Your task to perform on an android device: add a label to a message in the gmail app Image 0: 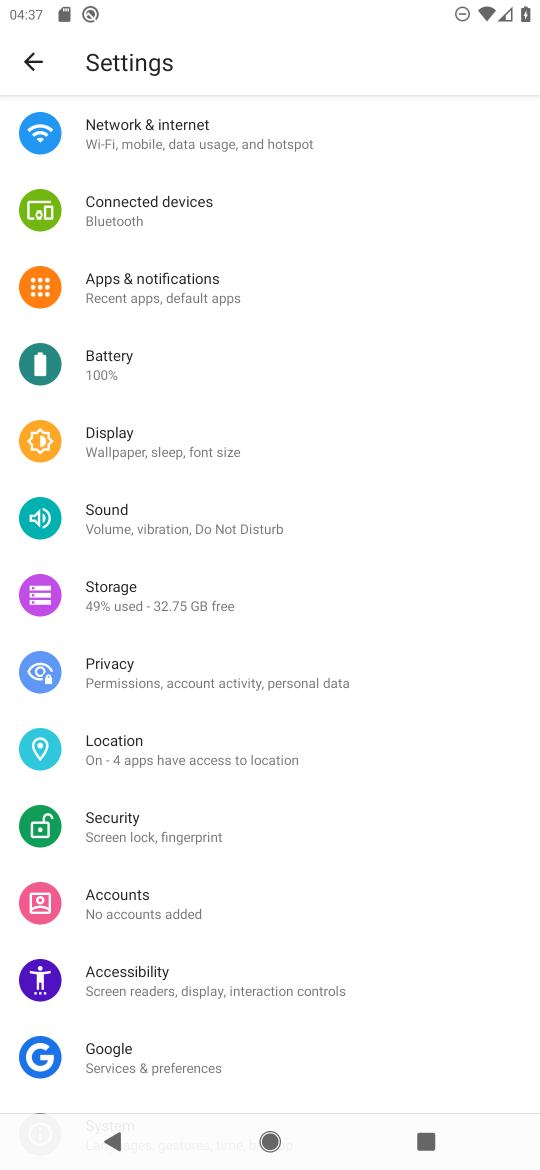
Step 0: press home button
Your task to perform on an android device: add a label to a message in the gmail app Image 1: 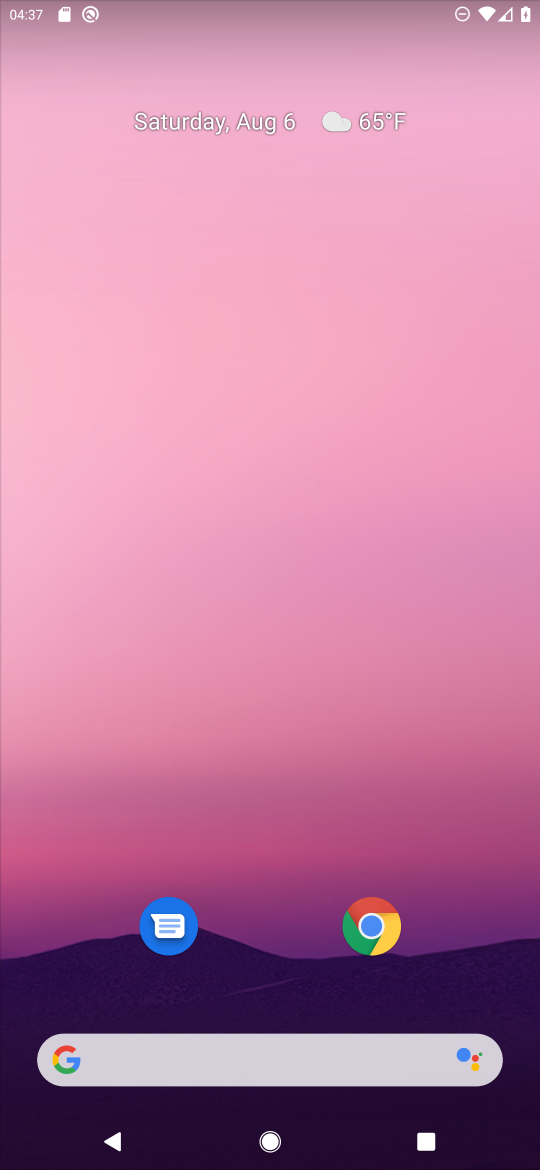
Step 1: drag from (274, 956) to (255, 445)
Your task to perform on an android device: add a label to a message in the gmail app Image 2: 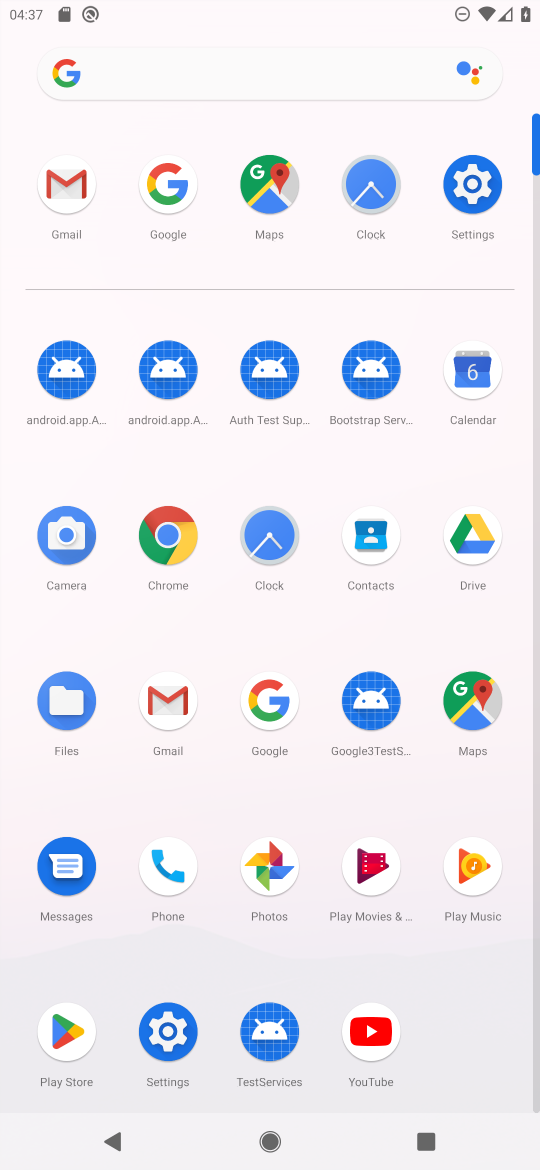
Step 2: click (153, 707)
Your task to perform on an android device: add a label to a message in the gmail app Image 3: 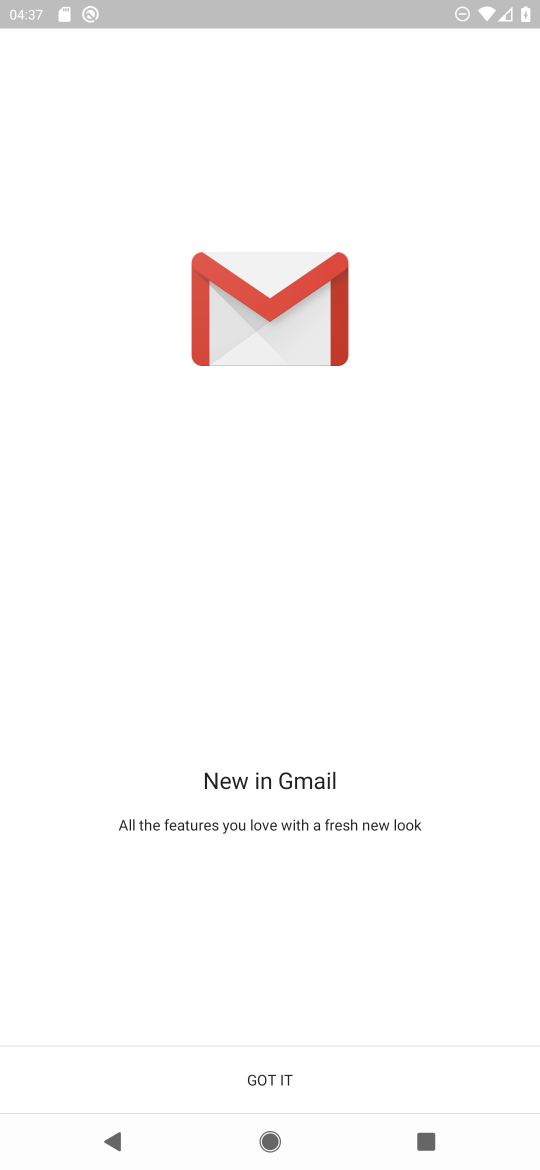
Step 3: click (373, 1095)
Your task to perform on an android device: add a label to a message in the gmail app Image 4: 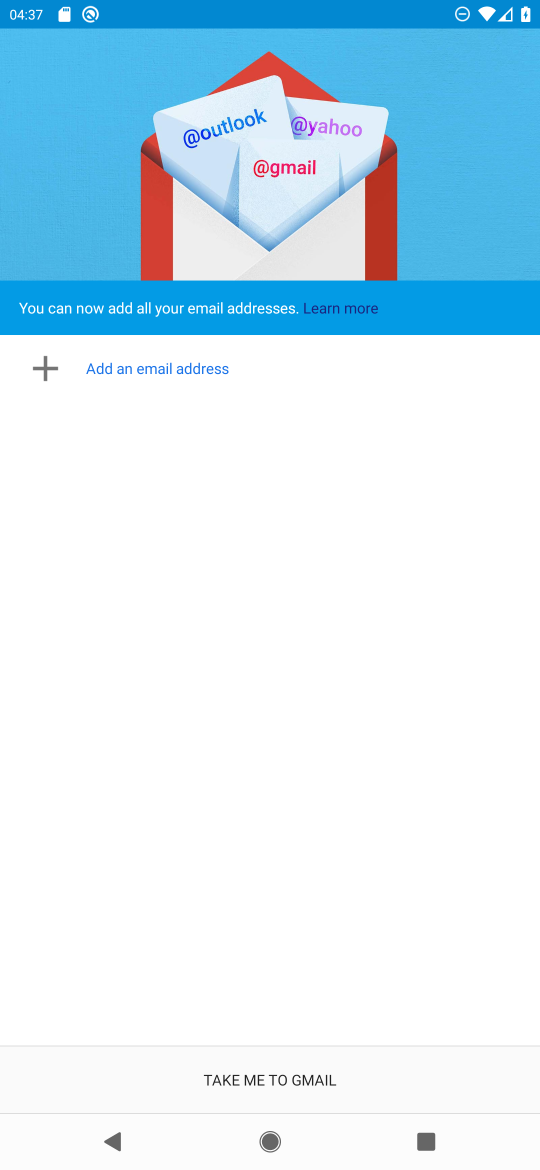
Step 4: task complete